Your task to perform on an android device: What is the news today? Image 0: 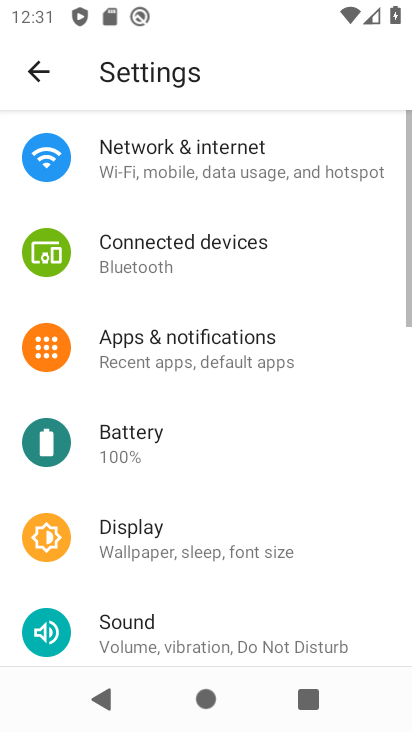
Step 0: press home button
Your task to perform on an android device: What is the news today? Image 1: 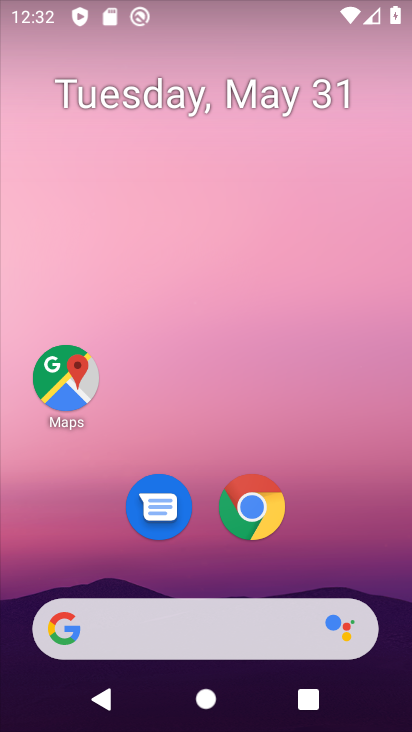
Step 1: click (261, 514)
Your task to perform on an android device: What is the news today? Image 2: 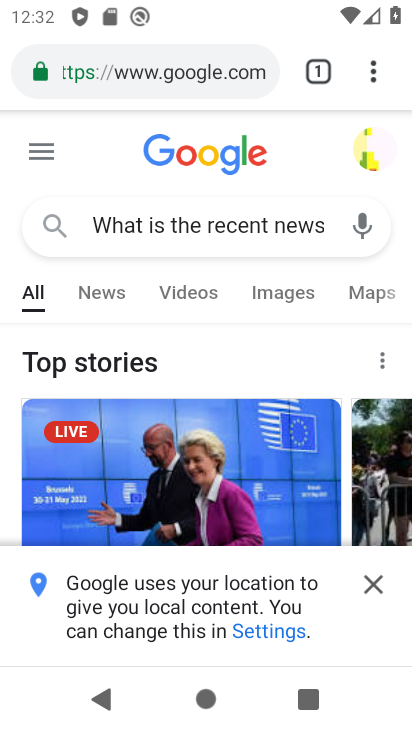
Step 2: click (141, 88)
Your task to perform on an android device: What is the news today? Image 3: 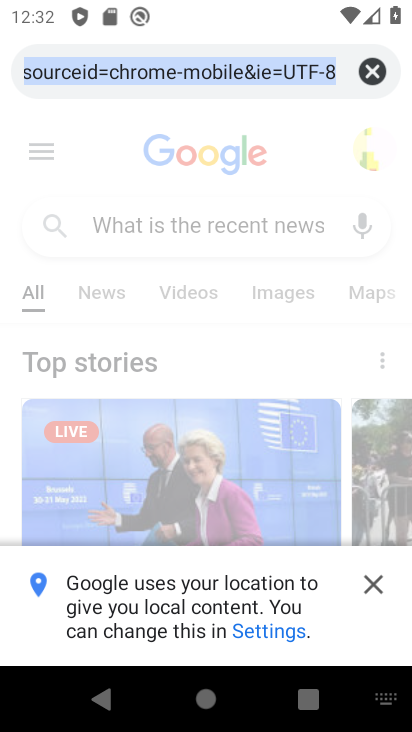
Step 3: click (352, 58)
Your task to perform on an android device: What is the news today? Image 4: 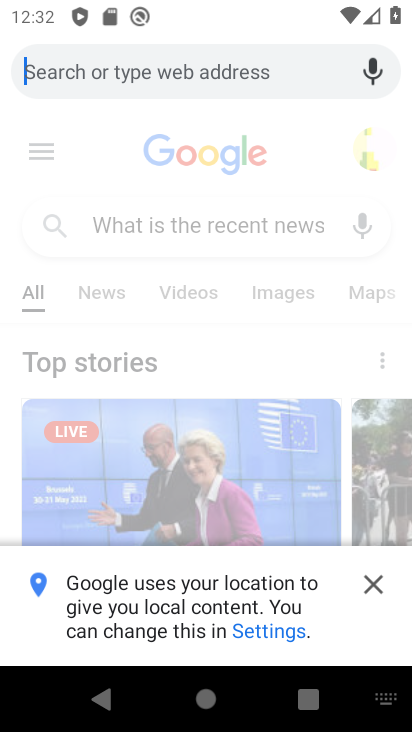
Step 4: type "What is the news today?"
Your task to perform on an android device: What is the news today? Image 5: 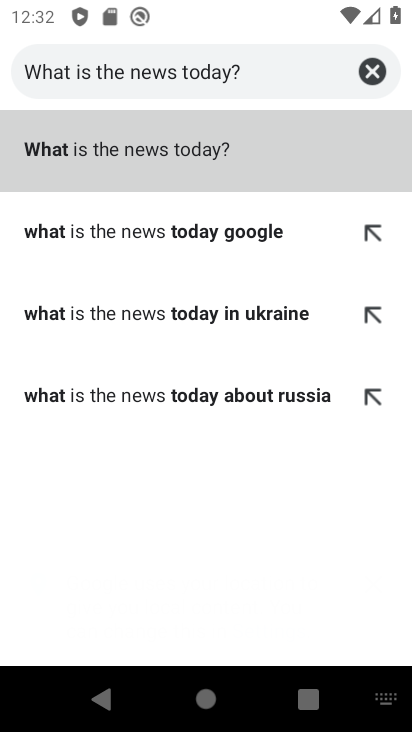
Step 5: click (104, 157)
Your task to perform on an android device: What is the news today? Image 6: 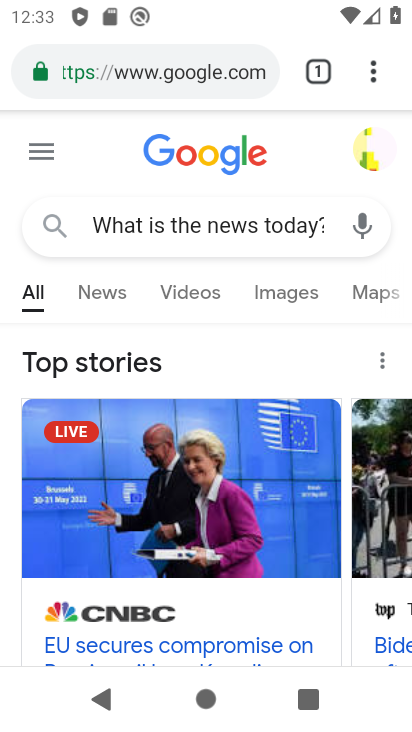
Step 6: task complete